Your task to perform on an android device: Search for Italian restaurants on Maps Image 0: 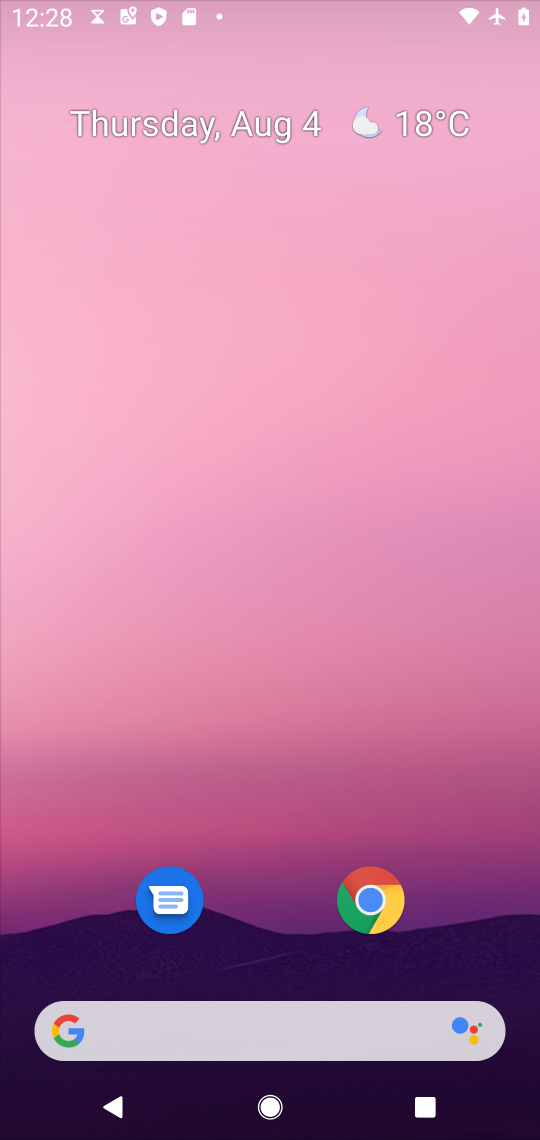
Step 0: press home button
Your task to perform on an android device: Search for Italian restaurants on Maps Image 1: 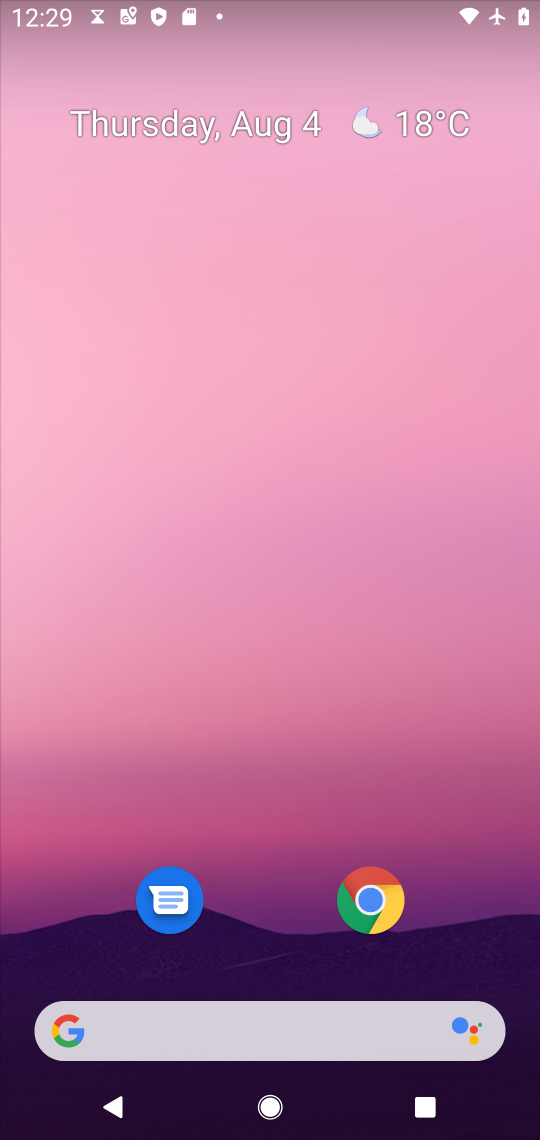
Step 1: drag from (257, 792) to (261, 102)
Your task to perform on an android device: Search for Italian restaurants on Maps Image 2: 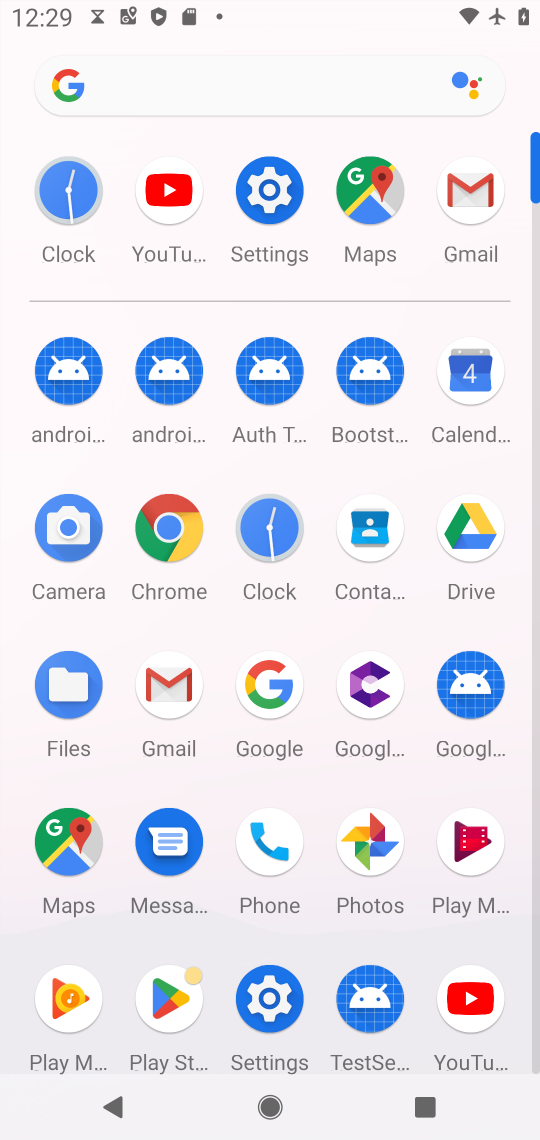
Step 2: click (67, 849)
Your task to perform on an android device: Search for Italian restaurants on Maps Image 3: 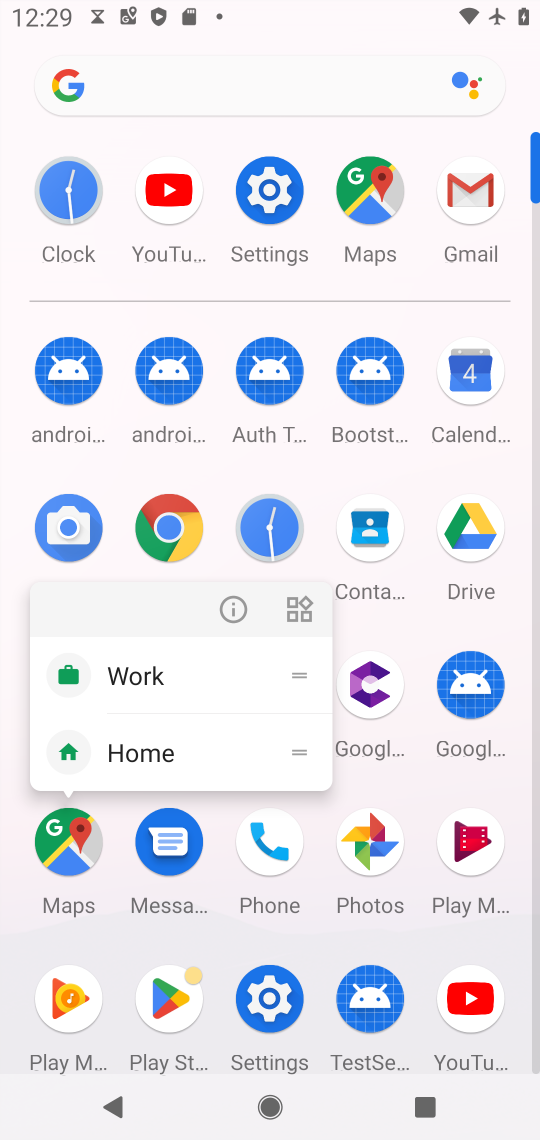
Step 3: click (84, 844)
Your task to perform on an android device: Search for Italian restaurants on Maps Image 4: 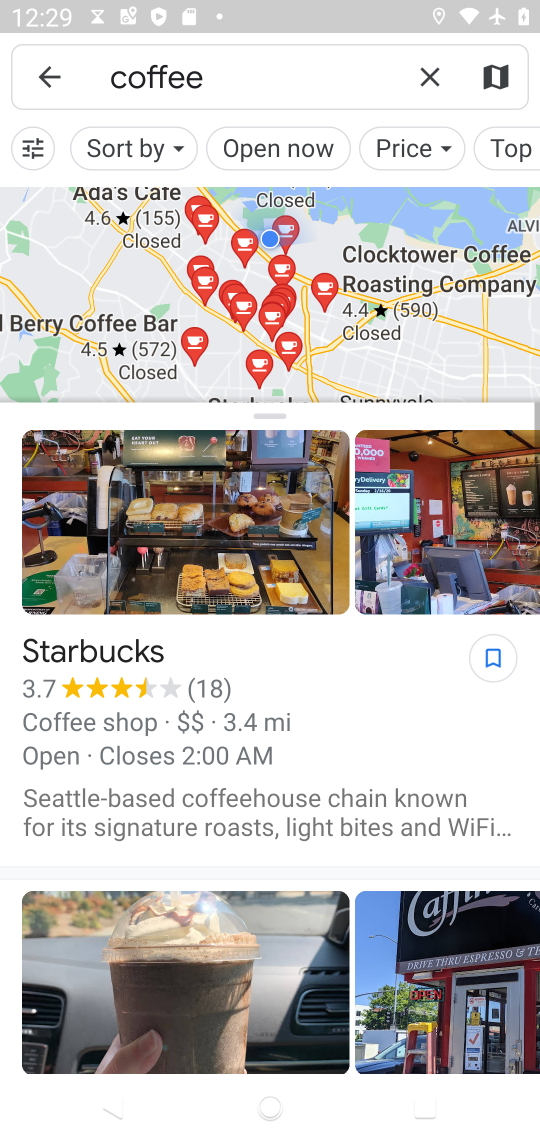
Step 4: click (433, 78)
Your task to perform on an android device: Search for Italian restaurants on Maps Image 5: 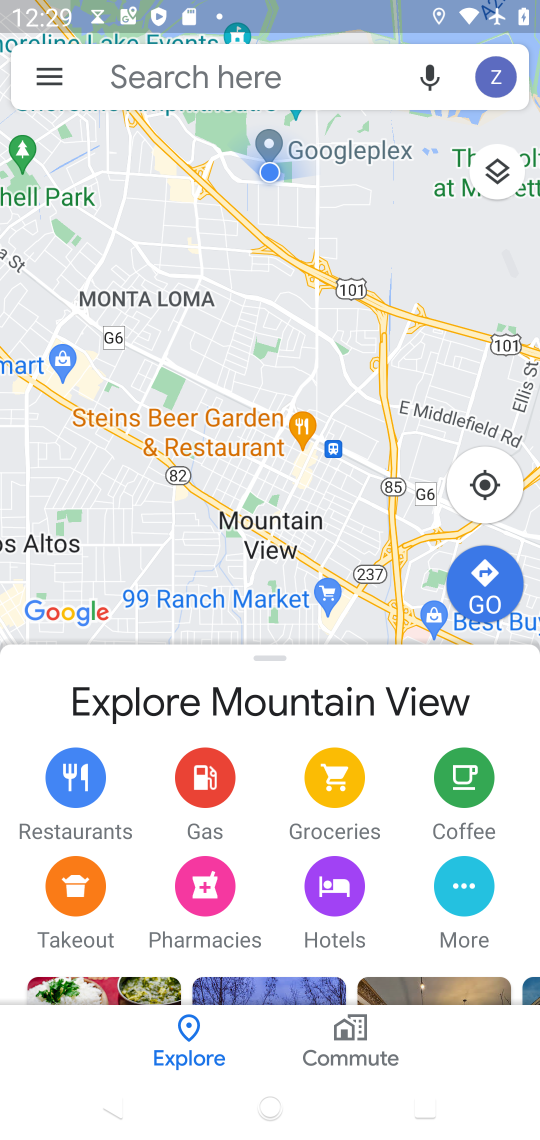
Step 5: click (212, 74)
Your task to perform on an android device: Search for Italian restaurants on Maps Image 6: 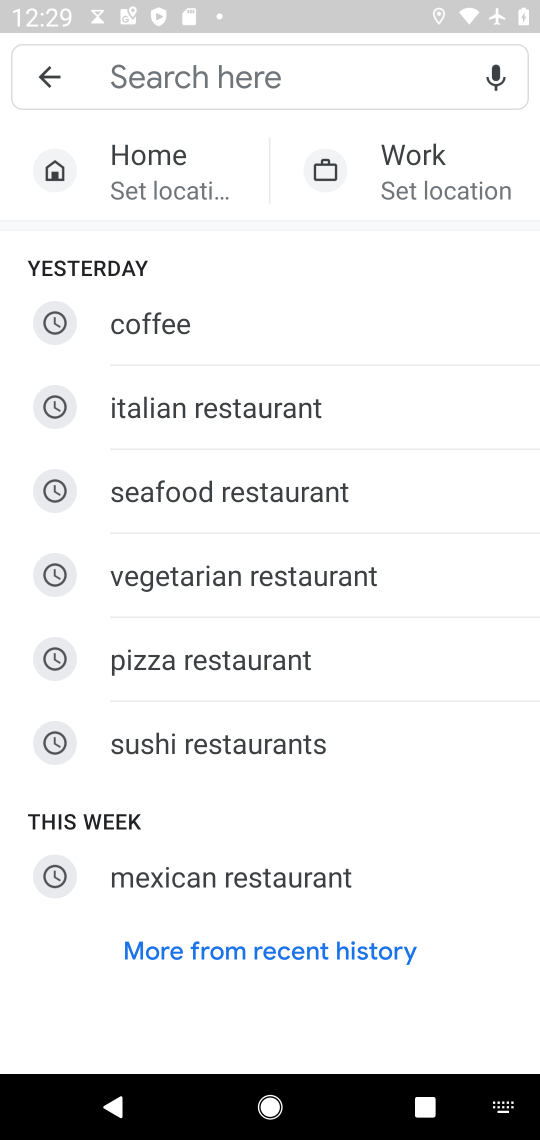
Step 6: click (221, 421)
Your task to perform on an android device: Search for Italian restaurants on Maps Image 7: 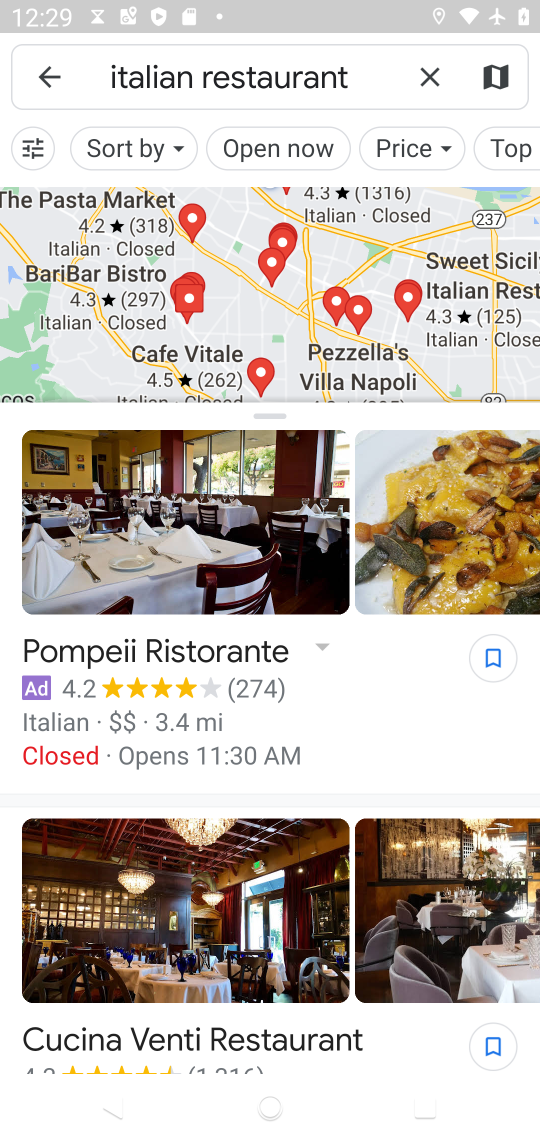
Step 7: task complete